Your task to perform on an android device: turn off priority inbox in the gmail app Image 0: 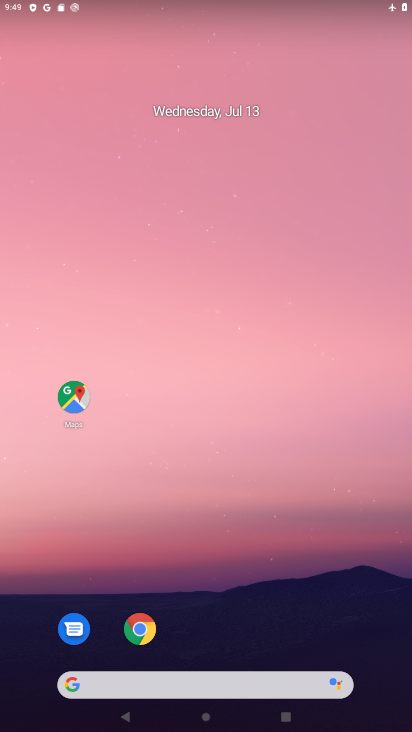
Step 0: drag from (287, 616) to (240, 98)
Your task to perform on an android device: turn off priority inbox in the gmail app Image 1: 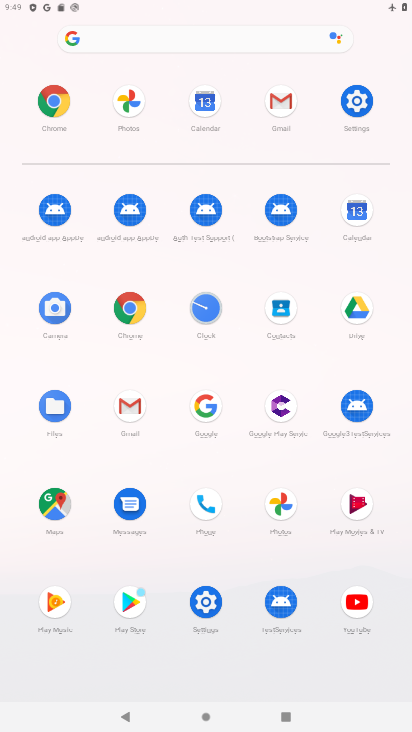
Step 1: click (283, 109)
Your task to perform on an android device: turn off priority inbox in the gmail app Image 2: 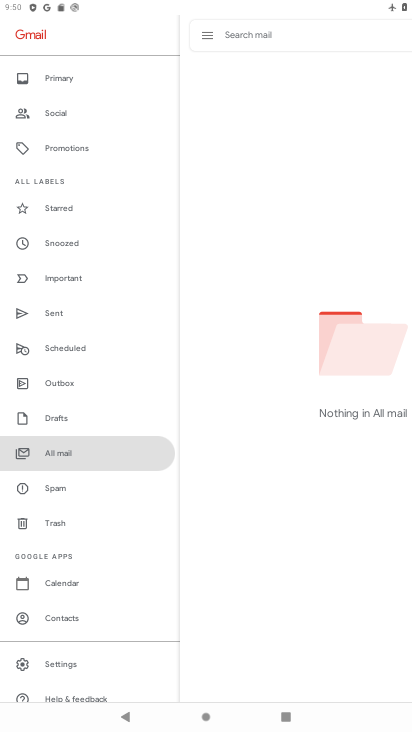
Step 2: click (31, 652)
Your task to perform on an android device: turn off priority inbox in the gmail app Image 3: 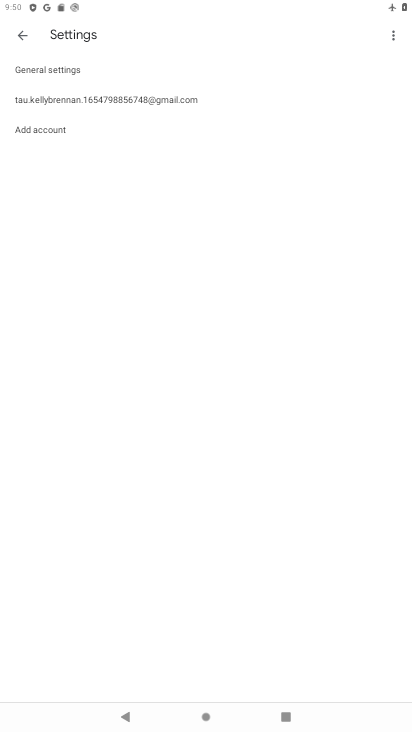
Step 3: click (227, 109)
Your task to perform on an android device: turn off priority inbox in the gmail app Image 4: 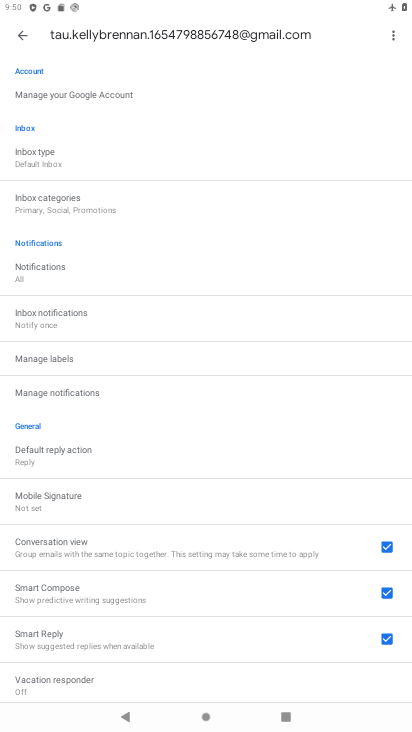
Step 4: click (161, 312)
Your task to perform on an android device: turn off priority inbox in the gmail app Image 5: 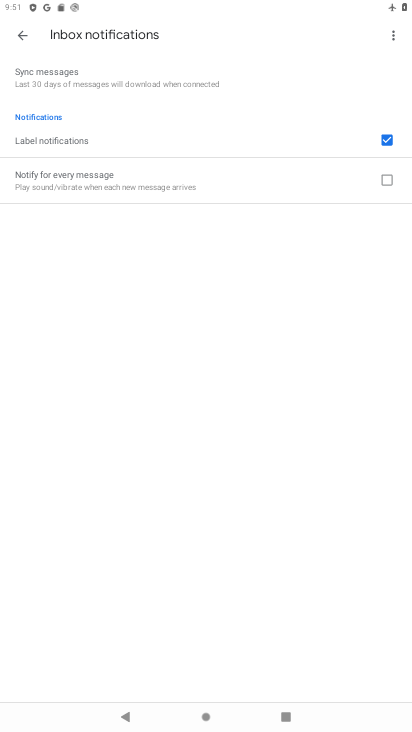
Step 5: click (25, 42)
Your task to perform on an android device: turn off priority inbox in the gmail app Image 6: 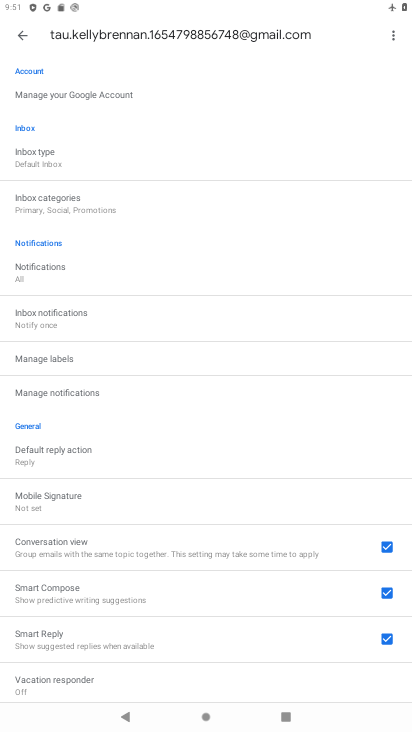
Step 6: click (82, 172)
Your task to perform on an android device: turn off priority inbox in the gmail app Image 7: 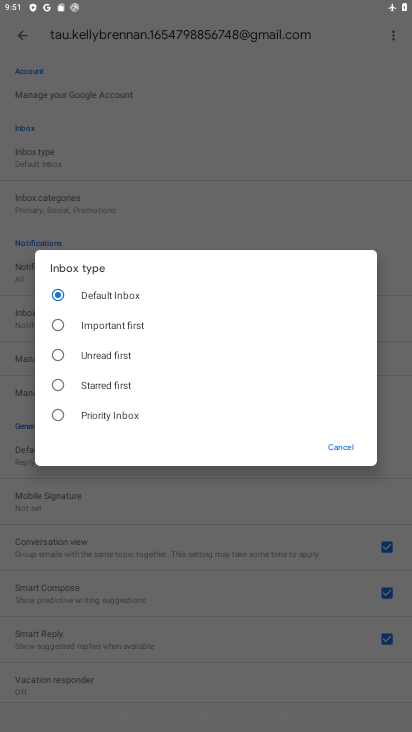
Step 7: click (91, 411)
Your task to perform on an android device: turn off priority inbox in the gmail app Image 8: 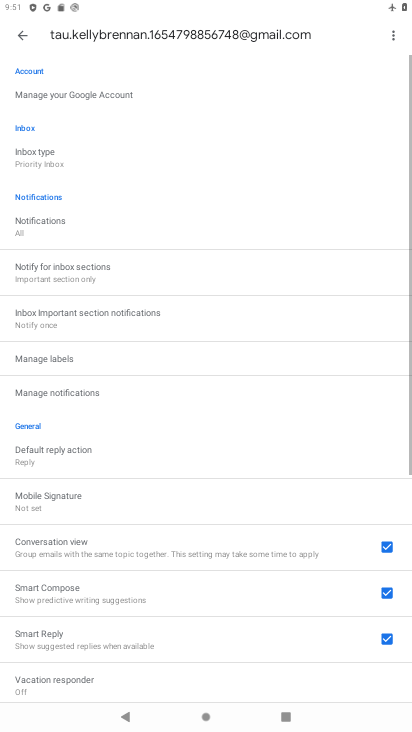
Step 8: task complete